Your task to perform on an android device: Open eBay Image 0: 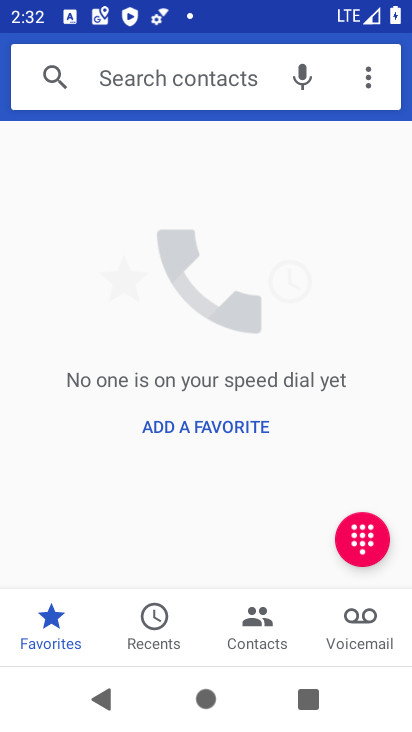
Step 0: press home button
Your task to perform on an android device: Open eBay Image 1: 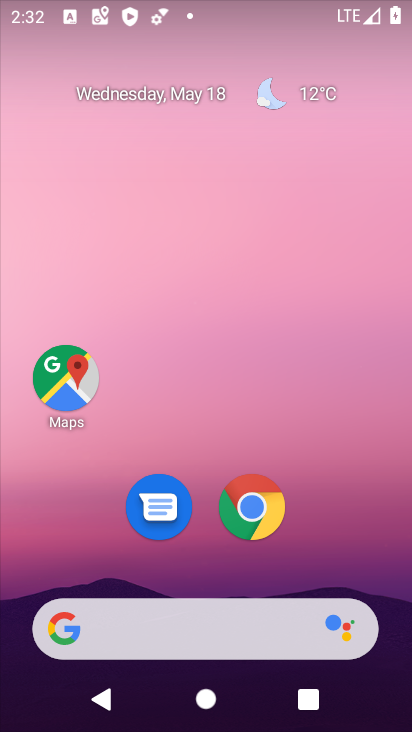
Step 1: click (254, 507)
Your task to perform on an android device: Open eBay Image 2: 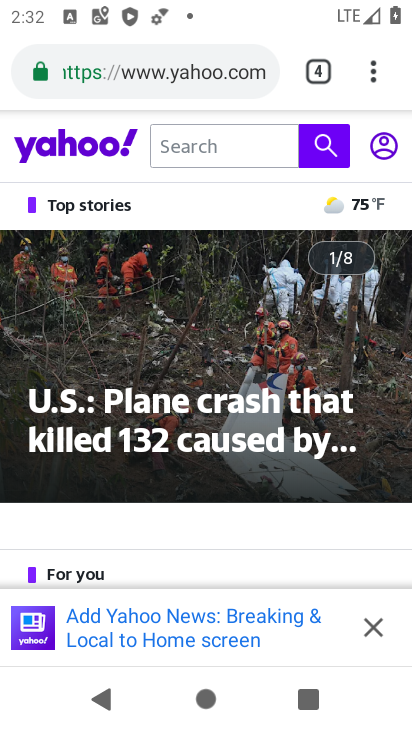
Step 2: click (189, 67)
Your task to perform on an android device: Open eBay Image 3: 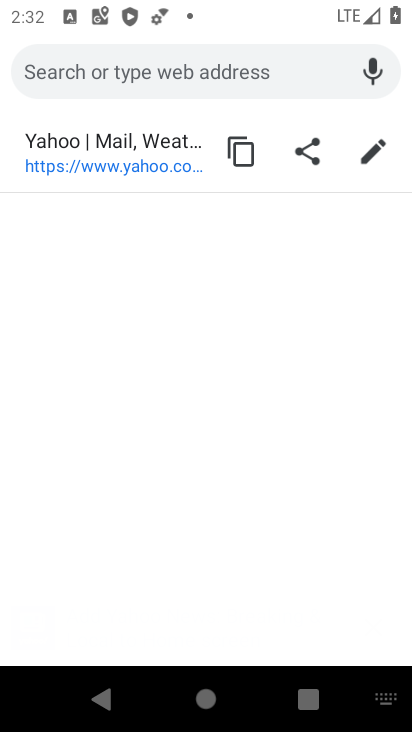
Step 3: type "ebay"
Your task to perform on an android device: Open eBay Image 4: 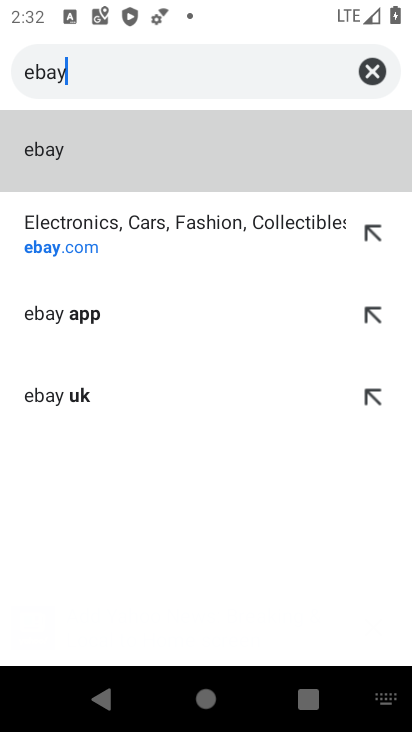
Step 4: click (87, 222)
Your task to perform on an android device: Open eBay Image 5: 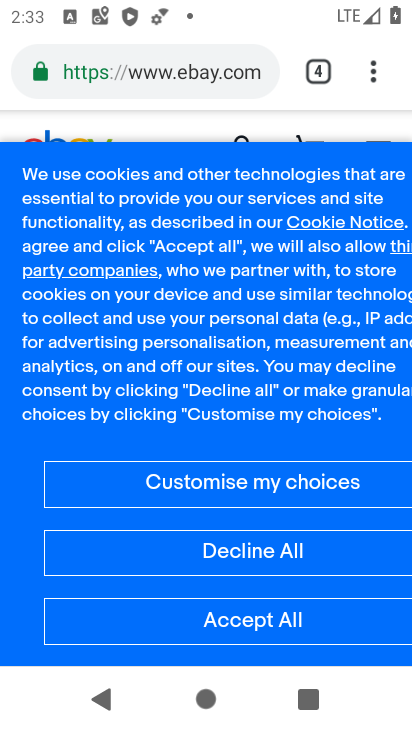
Step 5: task complete